Your task to perform on an android device: read, delete, or share a saved page in the chrome app Image 0: 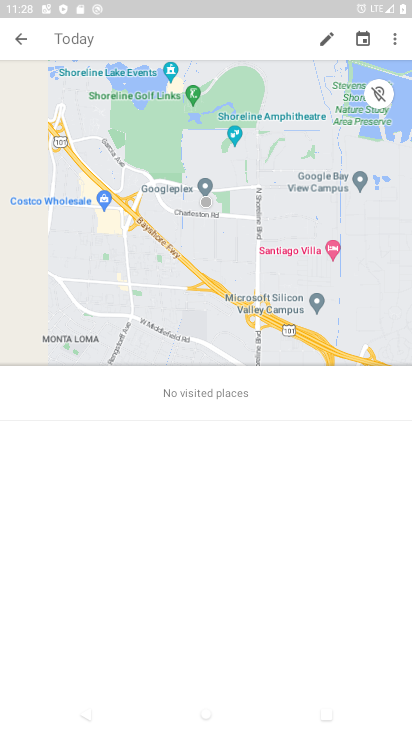
Step 0: press home button
Your task to perform on an android device: read, delete, or share a saved page in the chrome app Image 1: 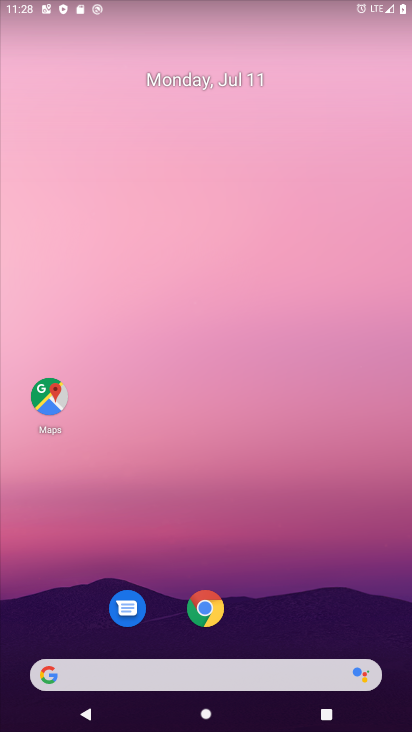
Step 1: click (231, 600)
Your task to perform on an android device: read, delete, or share a saved page in the chrome app Image 2: 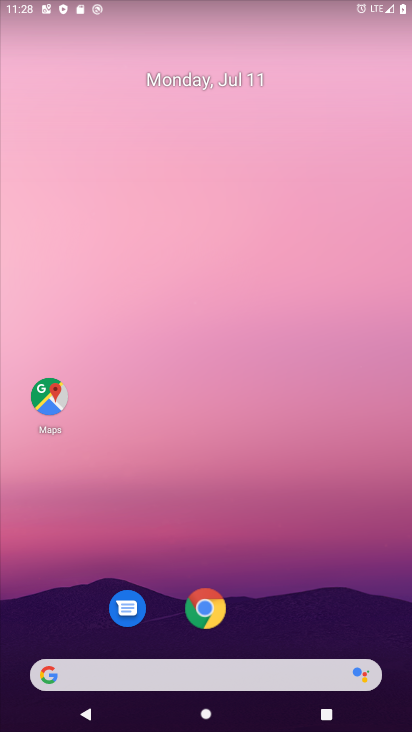
Step 2: click (213, 610)
Your task to perform on an android device: read, delete, or share a saved page in the chrome app Image 3: 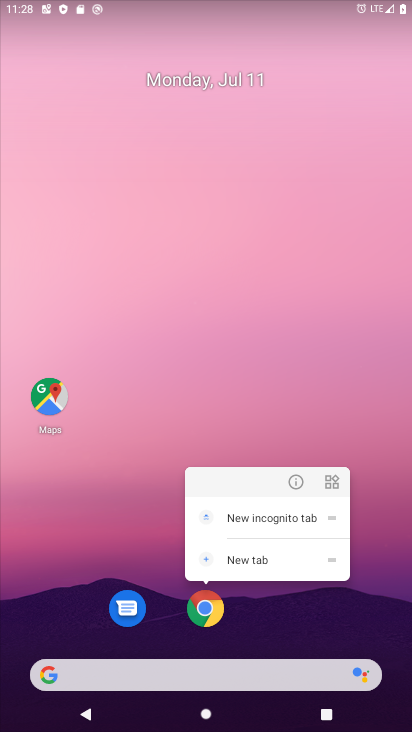
Step 3: click (221, 586)
Your task to perform on an android device: read, delete, or share a saved page in the chrome app Image 4: 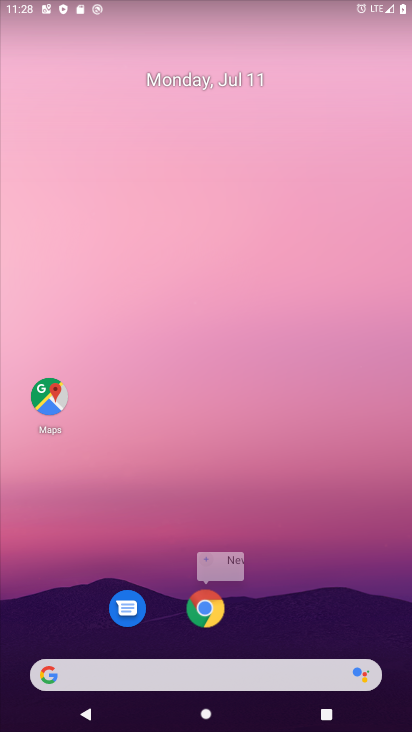
Step 4: click (211, 614)
Your task to perform on an android device: read, delete, or share a saved page in the chrome app Image 5: 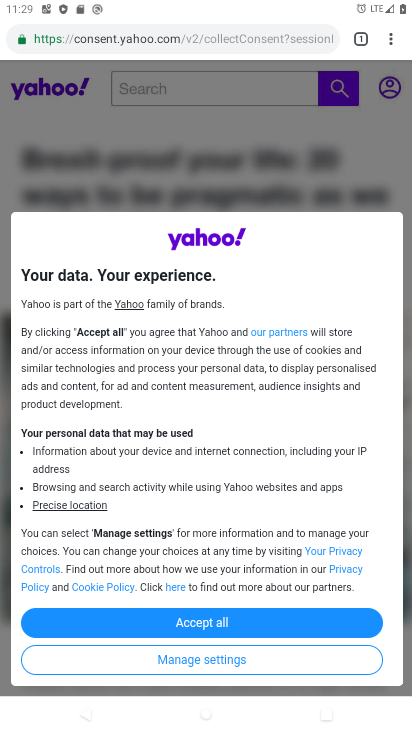
Step 5: click (396, 38)
Your task to perform on an android device: read, delete, or share a saved page in the chrome app Image 6: 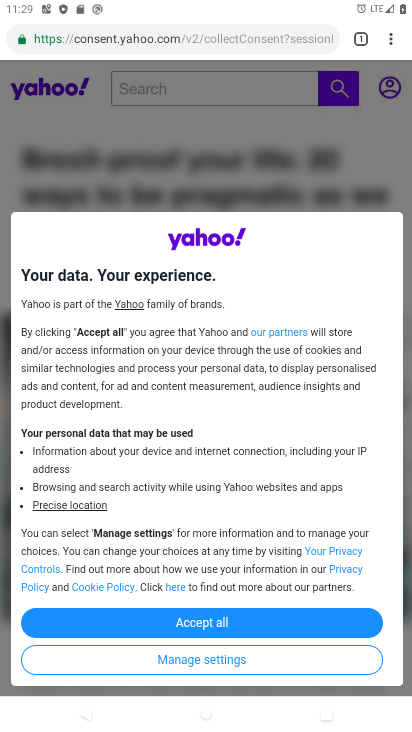
Step 6: click (387, 42)
Your task to perform on an android device: read, delete, or share a saved page in the chrome app Image 7: 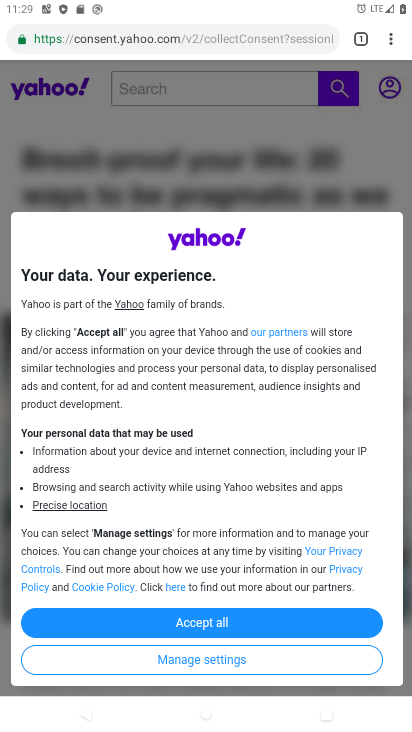
Step 7: click (387, 42)
Your task to perform on an android device: read, delete, or share a saved page in the chrome app Image 8: 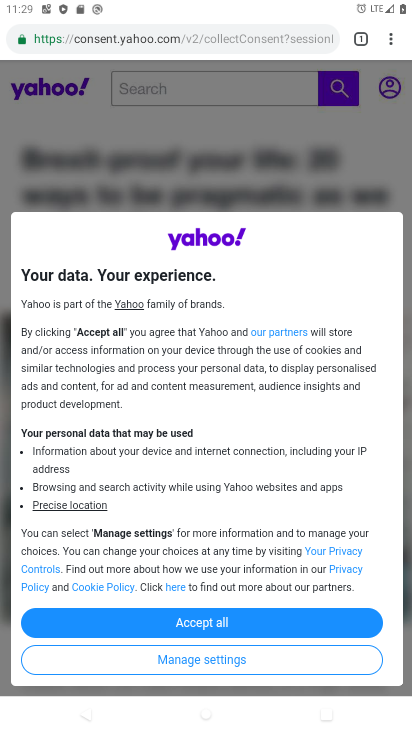
Step 8: task complete